Your task to perform on an android device: check out phone information Image 0: 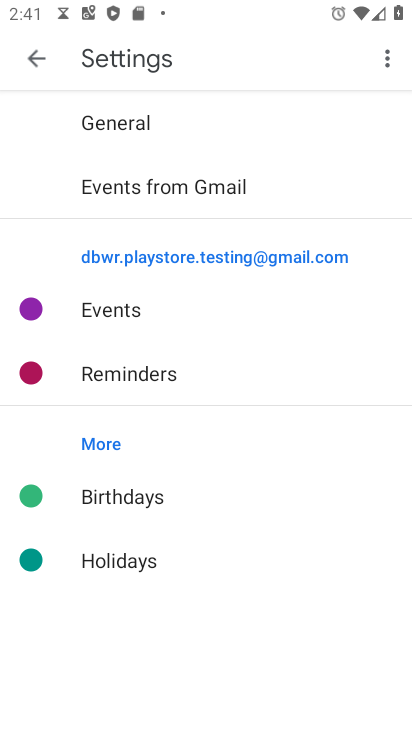
Step 0: press home button
Your task to perform on an android device: check out phone information Image 1: 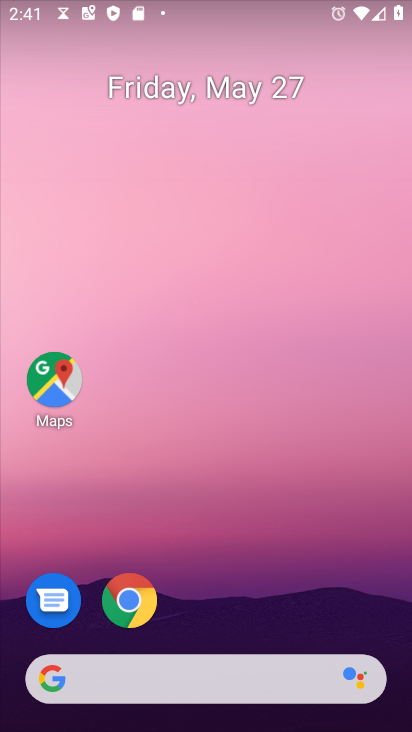
Step 1: drag from (204, 459) to (194, 24)
Your task to perform on an android device: check out phone information Image 2: 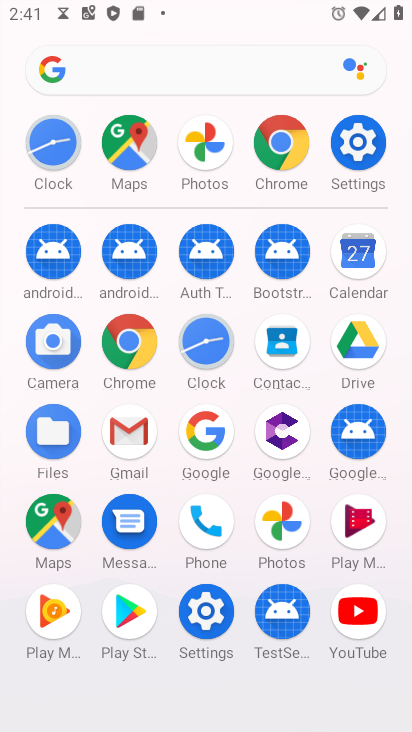
Step 2: click (202, 612)
Your task to perform on an android device: check out phone information Image 3: 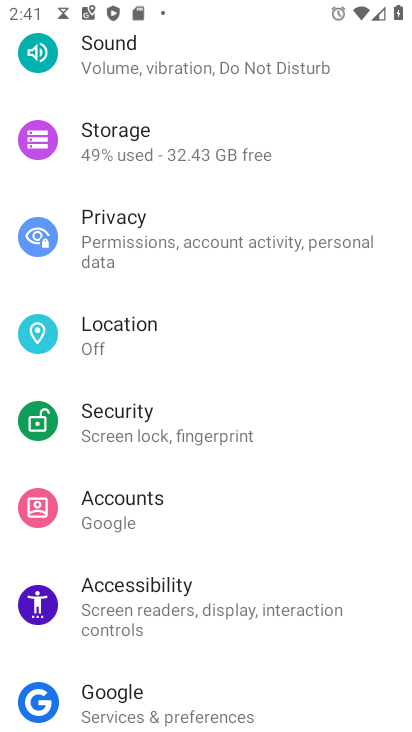
Step 3: drag from (275, 572) to (284, 63)
Your task to perform on an android device: check out phone information Image 4: 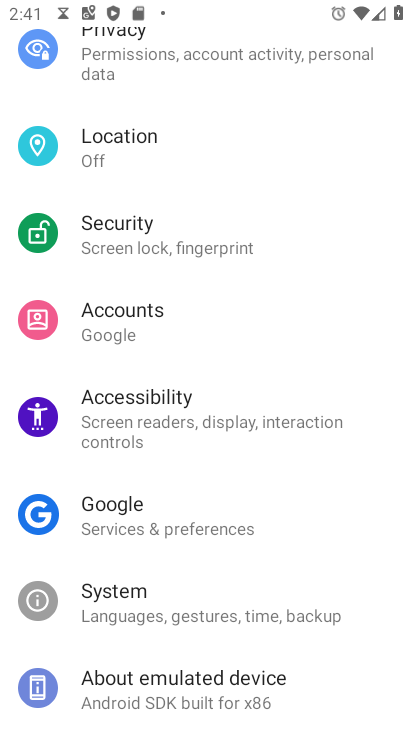
Step 4: drag from (209, 564) to (240, 99)
Your task to perform on an android device: check out phone information Image 5: 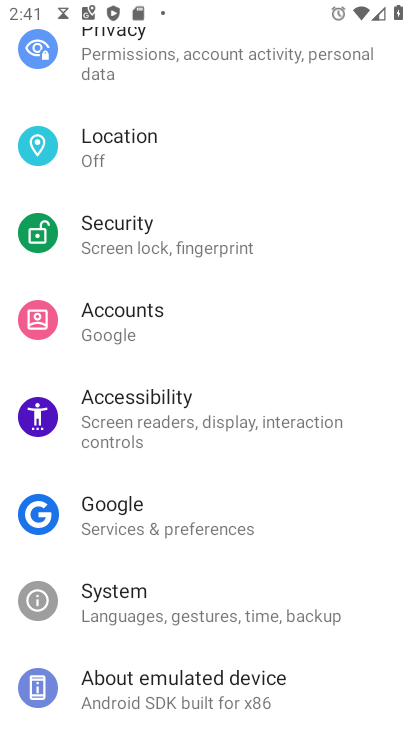
Step 5: click (178, 690)
Your task to perform on an android device: check out phone information Image 6: 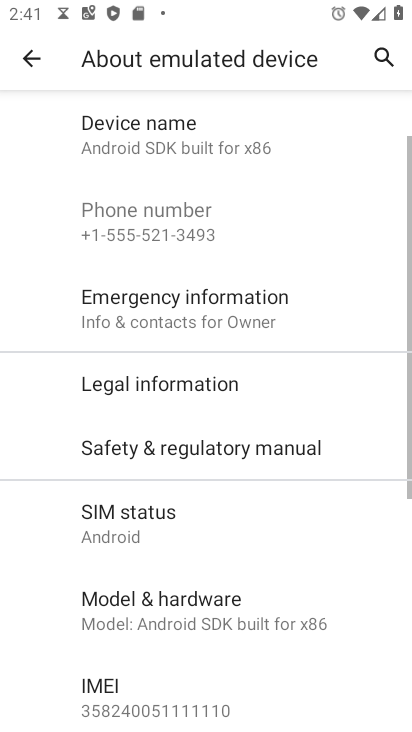
Step 6: task complete